Your task to perform on an android device: change your default location settings in chrome Image 0: 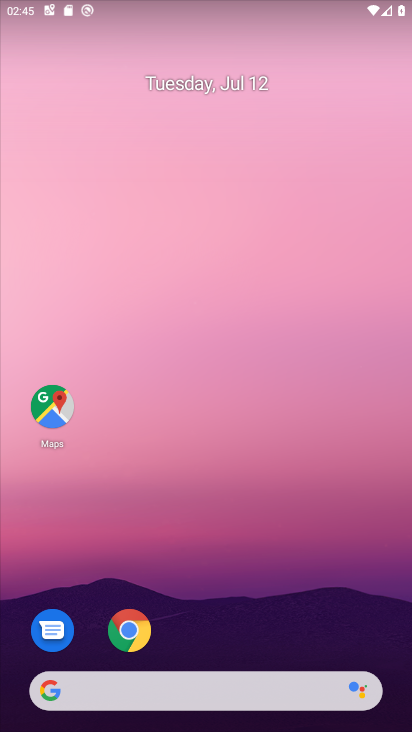
Step 0: click (128, 632)
Your task to perform on an android device: change your default location settings in chrome Image 1: 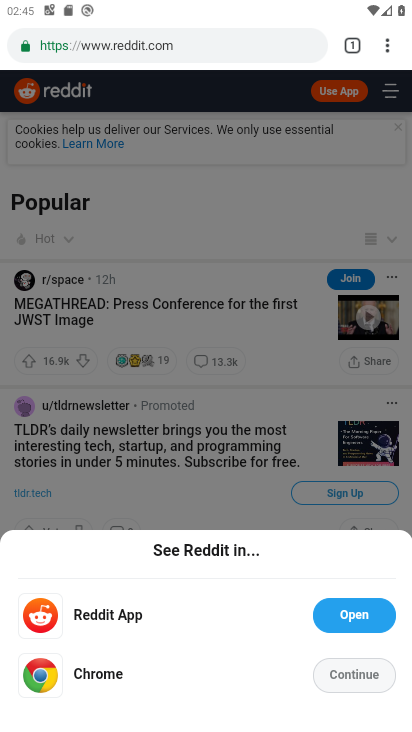
Step 1: click (389, 51)
Your task to perform on an android device: change your default location settings in chrome Image 2: 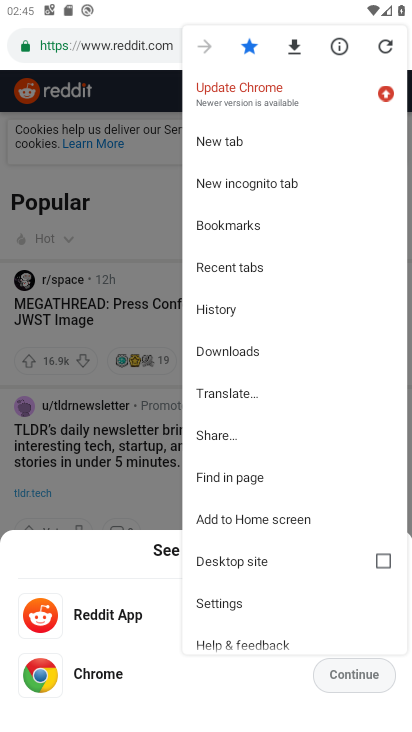
Step 2: click (224, 598)
Your task to perform on an android device: change your default location settings in chrome Image 3: 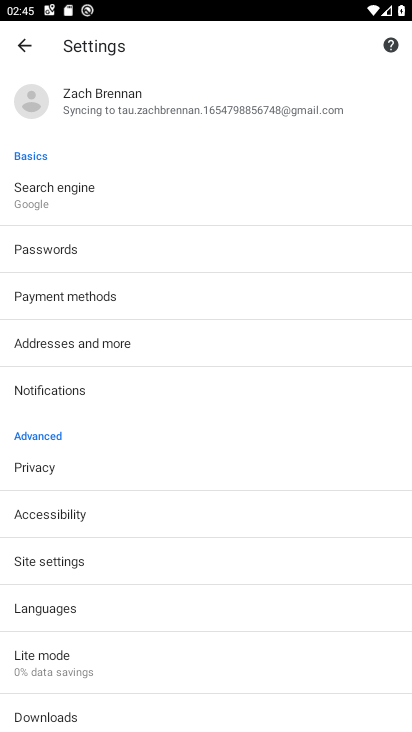
Step 3: click (46, 568)
Your task to perform on an android device: change your default location settings in chrome Image 4: 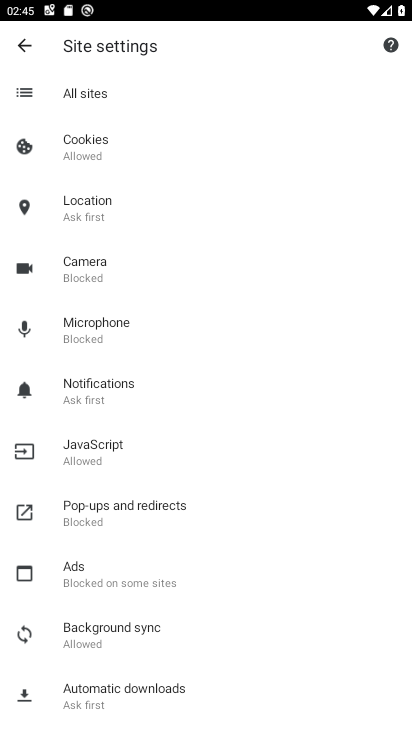
Step 4: click (79, 202)
Your task to perform on an android device: change your default location settings in chrome Image 5: 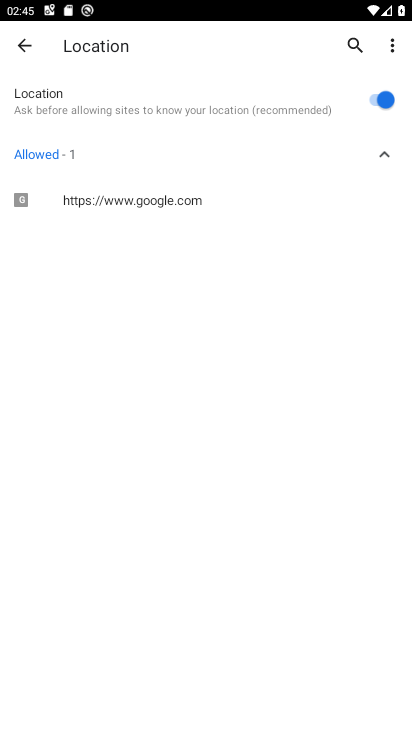
Step 5: click (373, 100)
Your task to perform on an android device: change your default location settings in chrome Image 6: 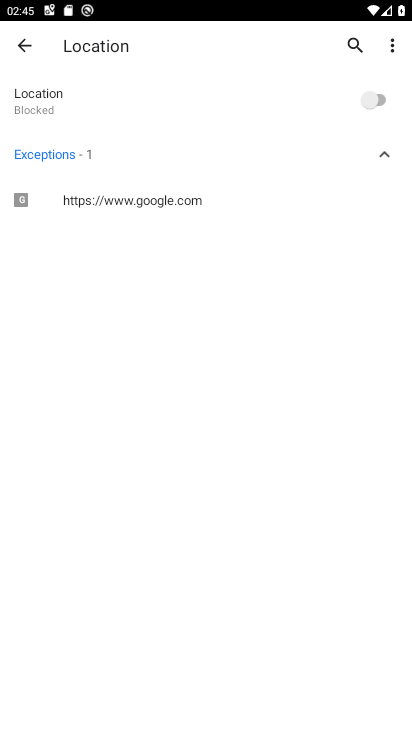
Step 6: task complete